Your task to perform on an android device: toggle airplane mode Image 0: 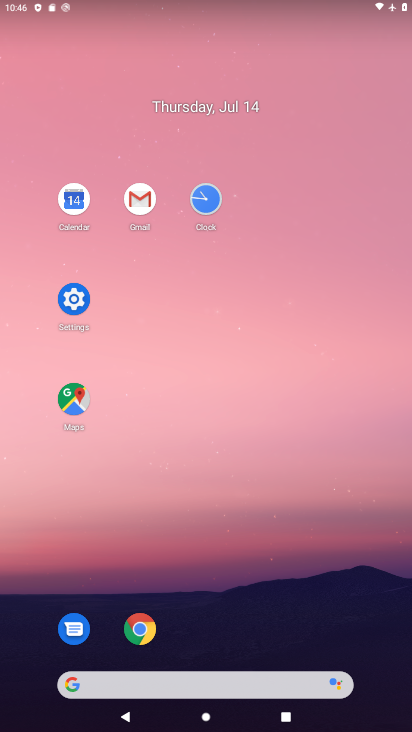
Step 0: click (76, 296)
Your task to perform on an android device: toggle airplane mode Image 1: 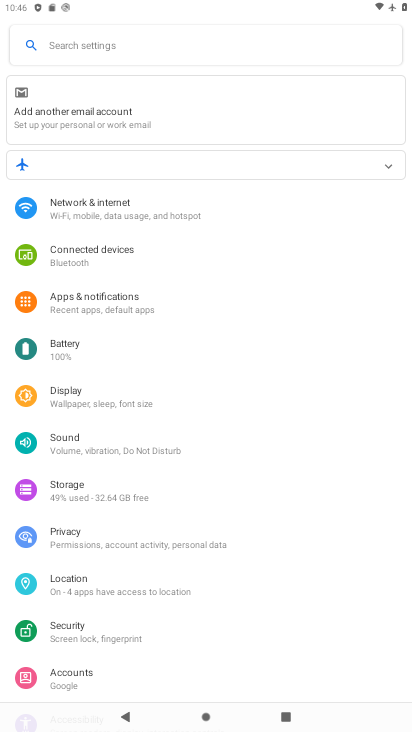
Step 1: click (159, 212)
Your task to perform on an android device: toggle airplane mode Image 2: 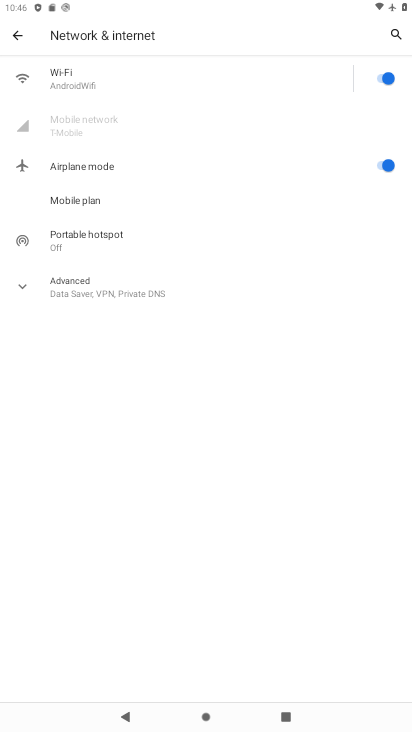
Step 2: click (391, 167)
Your task to perform on an android device: toggle airplane mode Image 3: 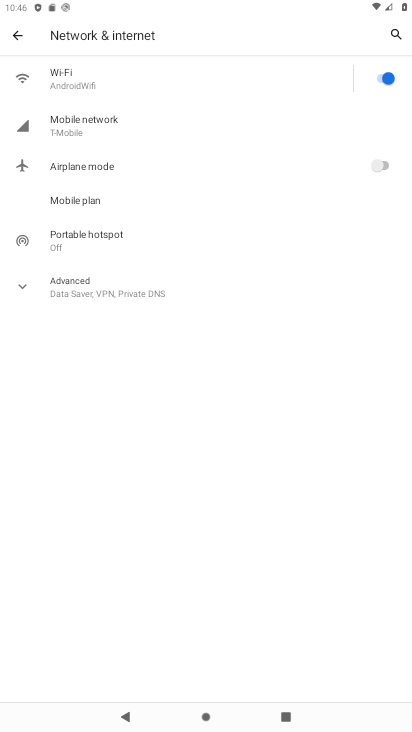
Step 3: task complete